Your task to perform on an android device: toggle javascript in the chrome app Image 0: 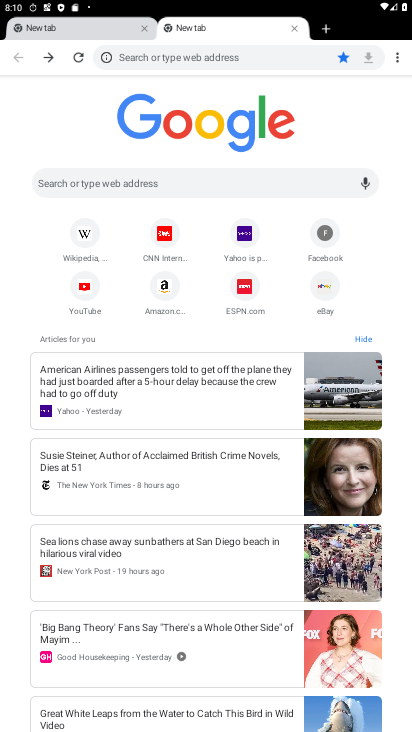
Step 0: press home button
Your task to perform on an android device: toggle javascript in the chrome app Image 1: 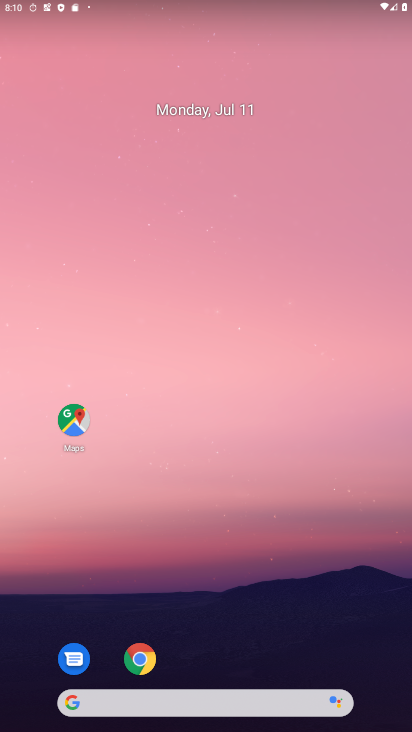
Step 1: drag from (292, 584) to (316, 46)
Your task to perform on an android device: toggle javascript in the chrome app Image 2: 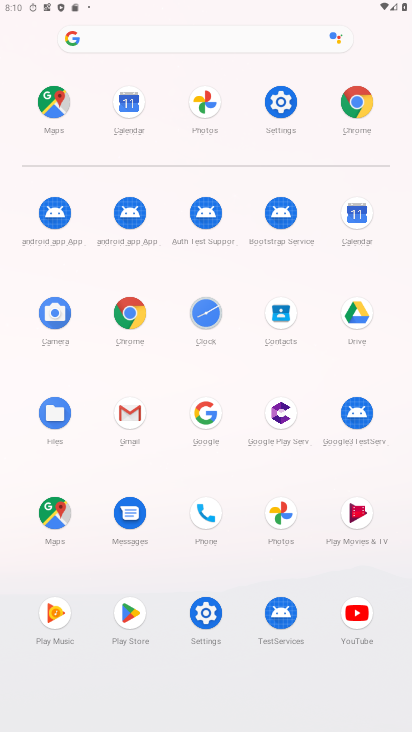
Step 2: click (357, 108)
Your task to perform on an android device: toggle javascript in the chrome app Image 3: 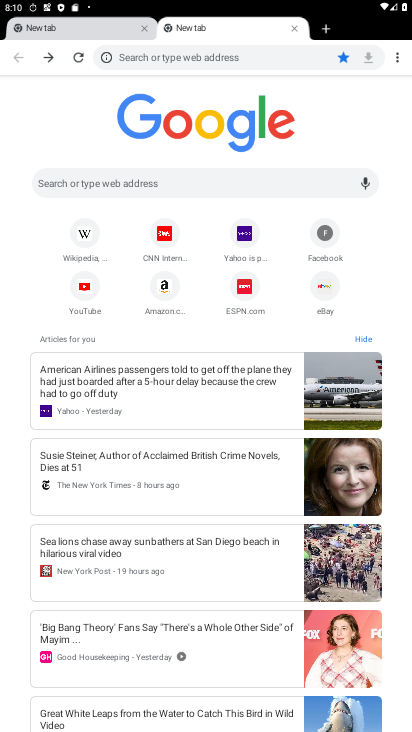
Step 3: drag from (405, 52) to (258, 273)
Your task to perform on an android device: toggle javascript in the chrome app Image 4: 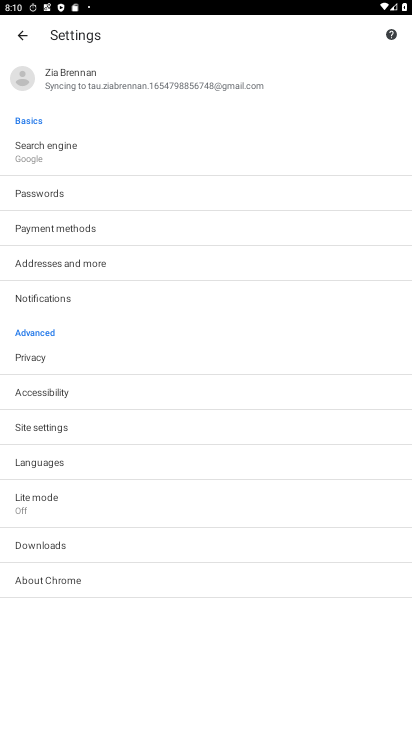
Step 4: click (59, 418)
Your task to perform on an android device: toggle javascript in the chrome app Image 5: 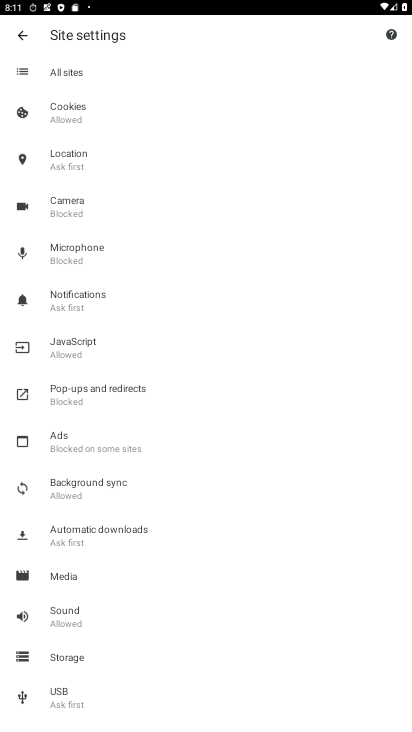
Step 5: click (72, 338)
Your task to perform on an android device: toggle javascript in the chrome app Image 6: 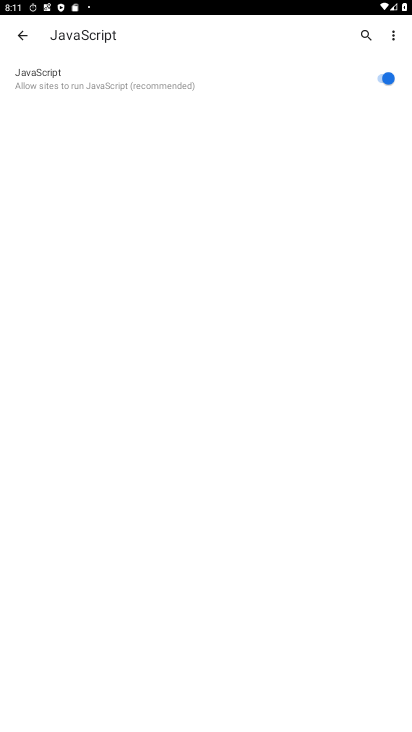
Step 6: click (383, 75)
Your task to perform on an android device: toggle javascript in the chrome app Image 7: 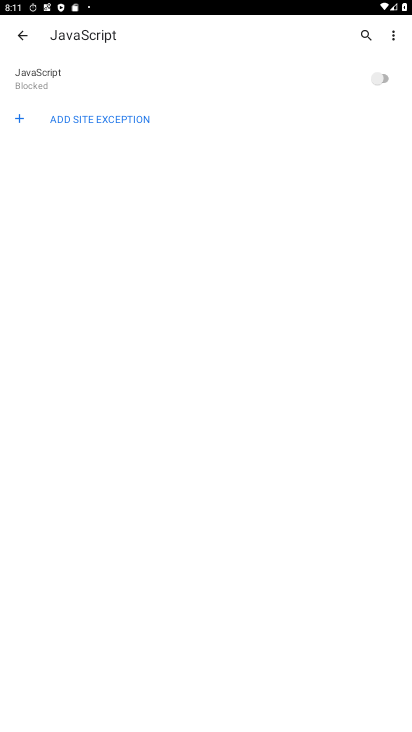
Step 7: task complete